Your task to perform on an android device: Open Chrome and go to settings Image 0: 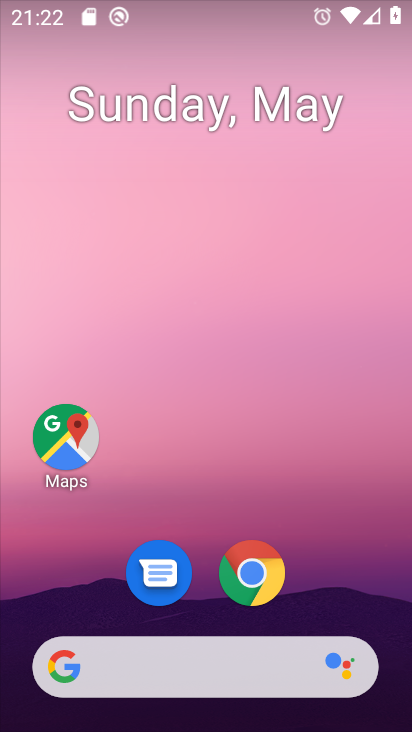
Step 0: click (266, 574)
Your task to perform on an android device: Open Chrome and go to settings Image 1: 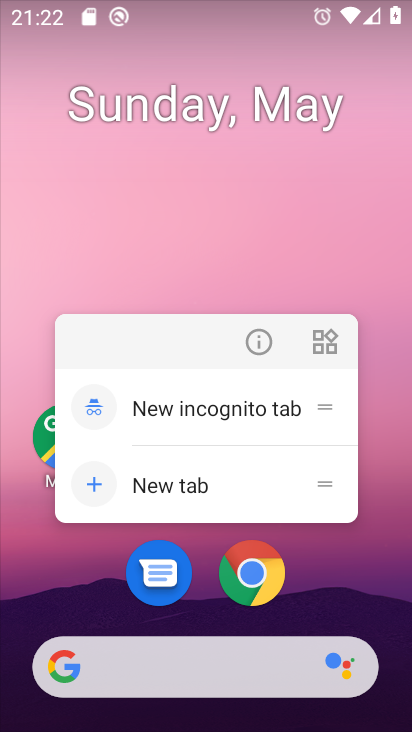
Step 1: click (268, 574)
Your task to perform on an android device: Open Chrome and go to settings Image 2: 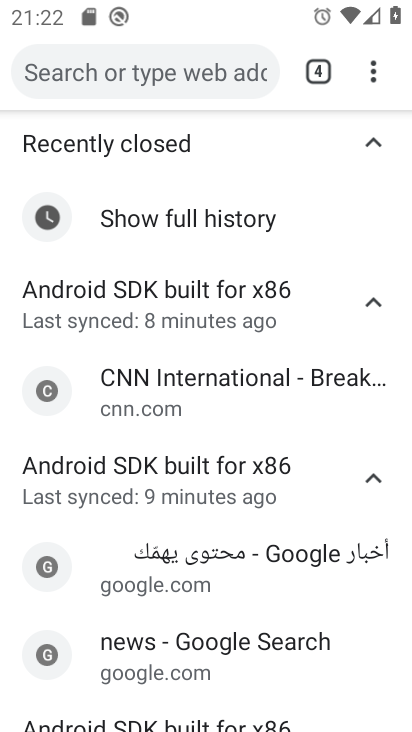
Step 2: click (372, 68)
Your task to perform on an android device: Open Chrome and go to settings Image 3: 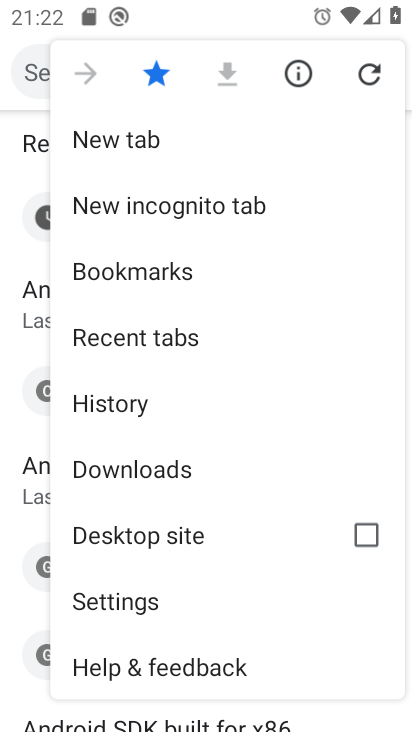
Step 3: click (182, 599)
Your task to perform on an android device: Open Chrome and go to settings Image 4: 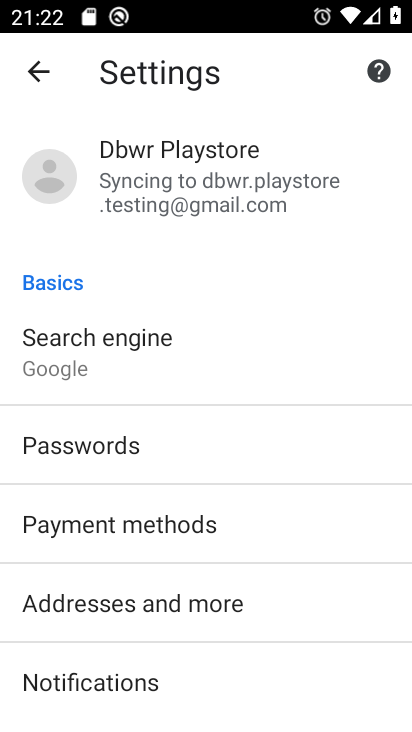
Step 4: task complete